Your task to perform on an android device: open device folders in google photos Image 0: 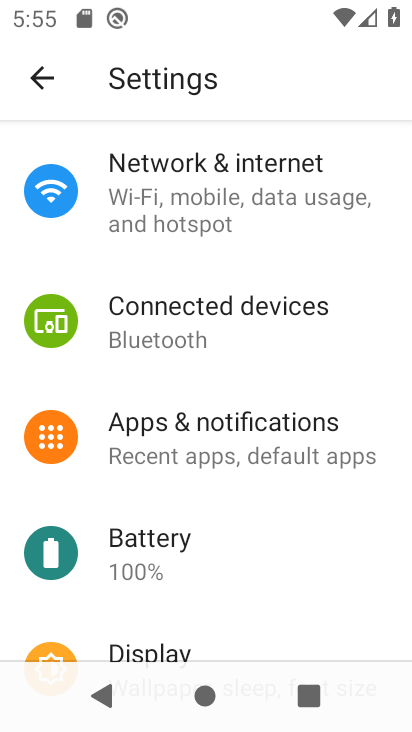
Step 0: drag from (199, 602) to (210, 88)
Your task to perform on an android device: open device folders in google photos Image 1: 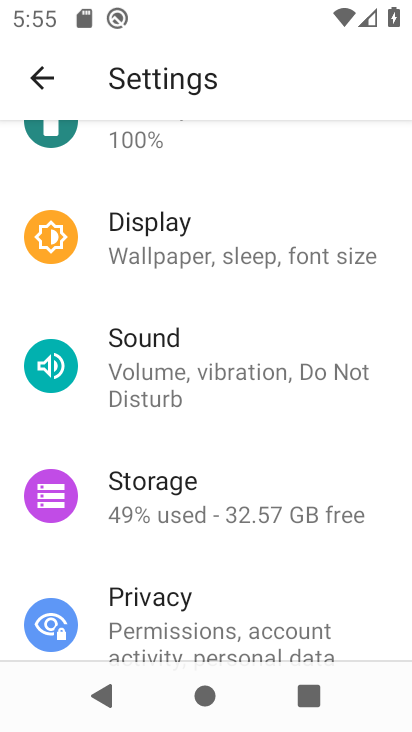
Step 1: press home button
Your task to perform on an android device: open device folders in google photos Image 2: 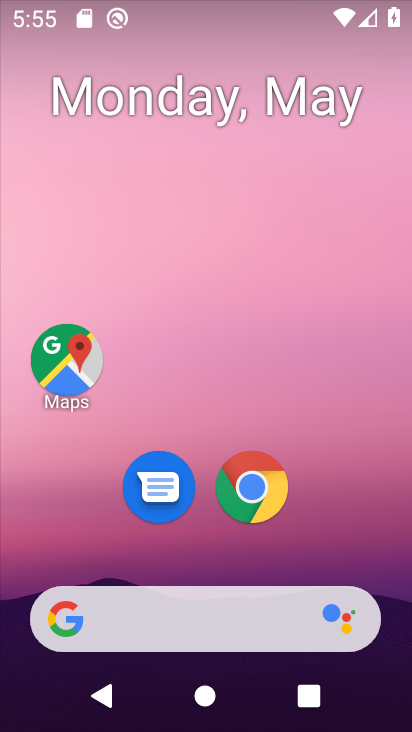
Step 2: drag from (210, 557) to (250, 63)
Your task to perform on an android device: open device folders in google photos Image 3: 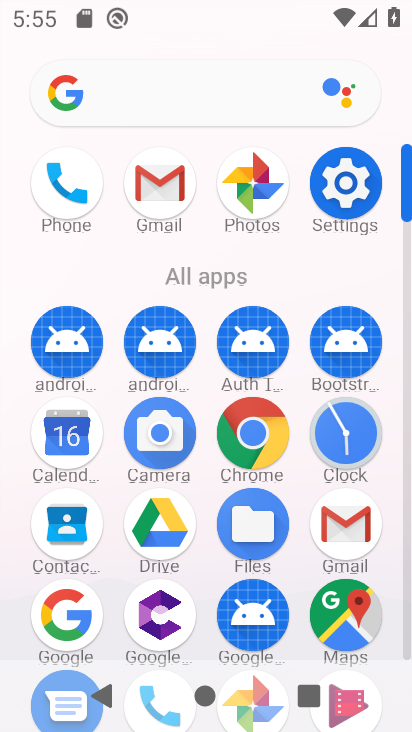
Step 3: drag from (205, 562) to (207, 142)
Your task to perform on an android device: open device folders in google photos Image 4: 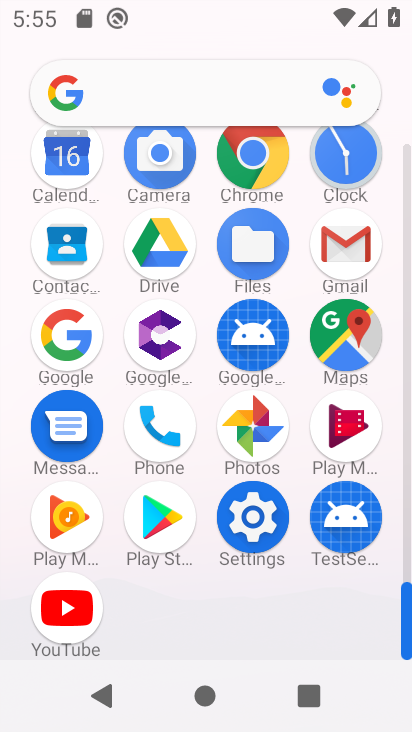
Step 4: click (251, 416)
Your task to perform on an android device: open device folders in google photos Image 5: 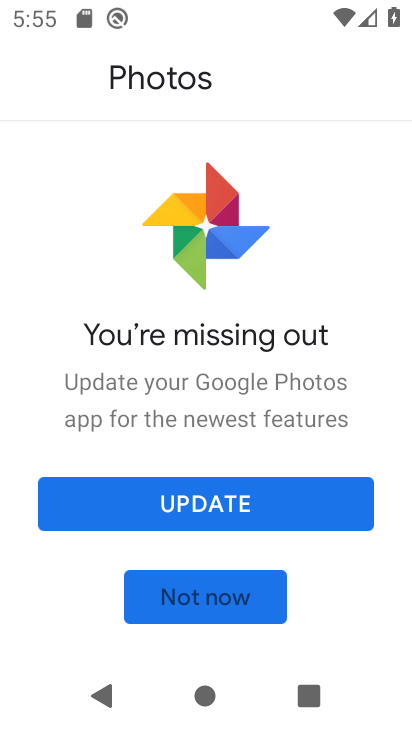
Step 5: click (212, 500)
Your task to perform on an android device: open device folders in google photos Image 6: 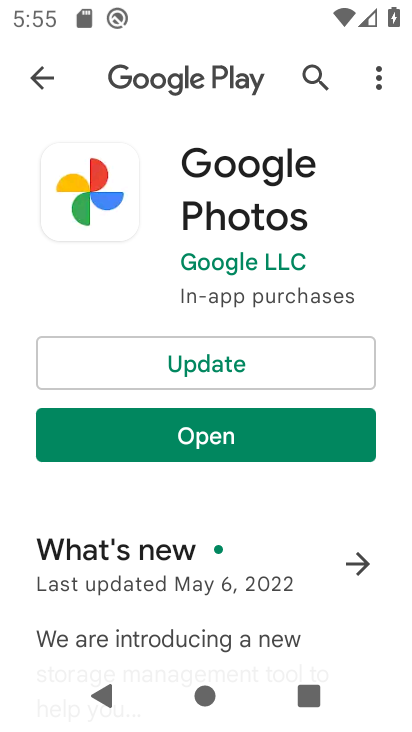
Step 6: click (214, 363)
Your task to perform on an android device: open device folders in google photos Image 7: 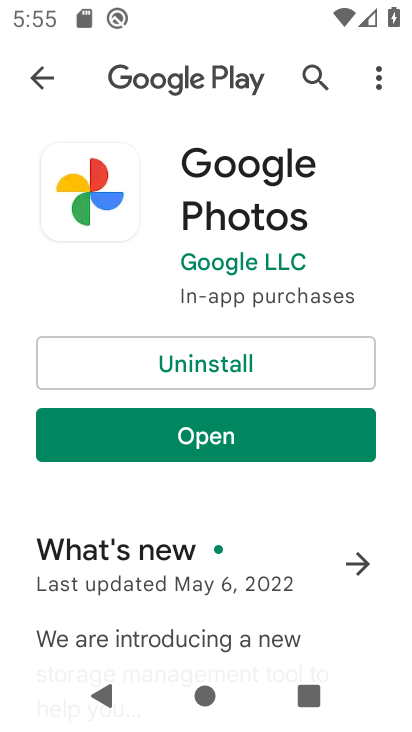
Step 7: click (202, 446)
Your task to perform on an android device: open device folders in google photos Image 8: 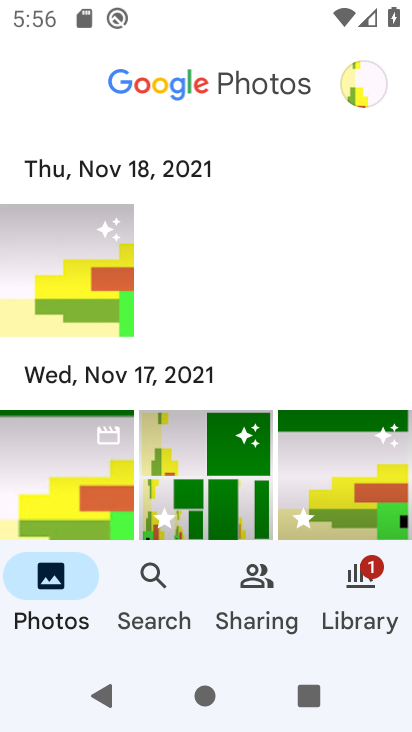
Step 8: click (164, 465)
Your task to perform on an android device: open device folders in google photos Image 9: 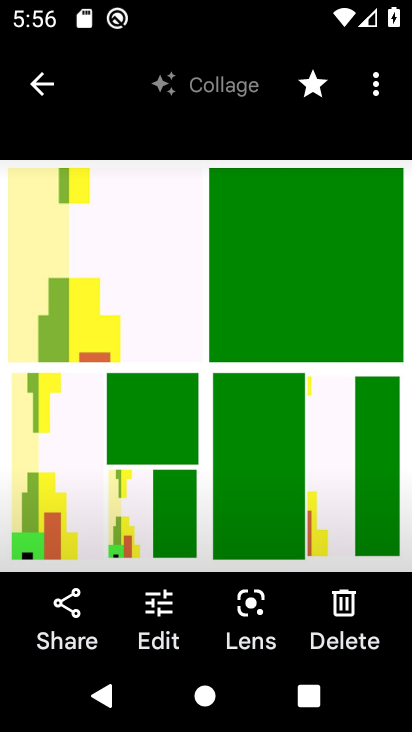
Step 9: click (90, 685)
Your task to perform on an android device: open device folders in google photos Image 10: 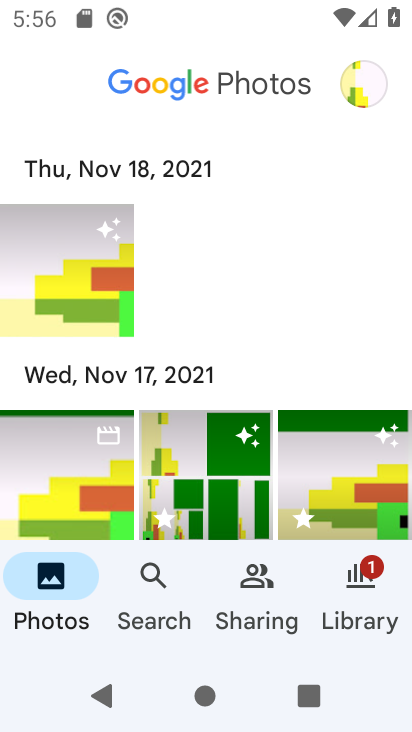
Step 10: click (141, 571)
Your task to perform on an android device: open device folders in google photos Image 11: 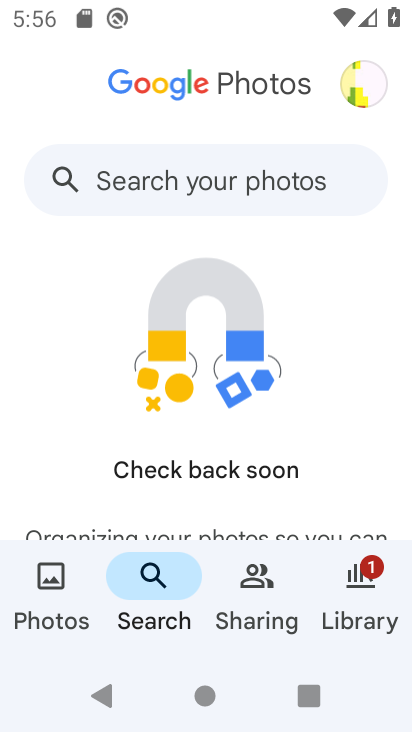
Step 11: drag from (125, 438) to (135, 164)
Your task to perform on an android device: open device folders in google photos Image 12: 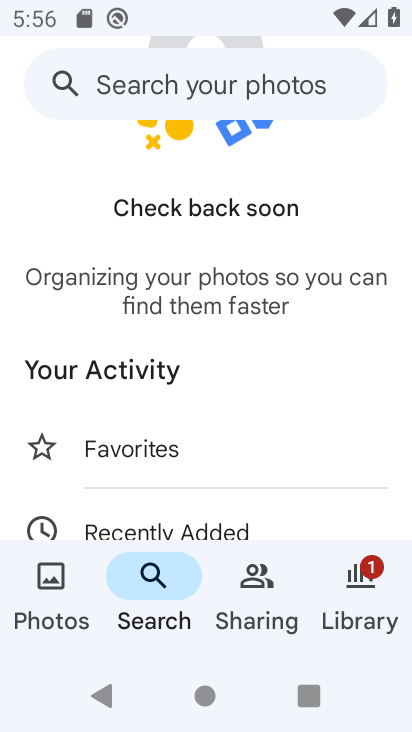
Step 12: drag from (123, 472) to (134, 105)
Your task to perform on an android device: open device folders in google photos Image 13: 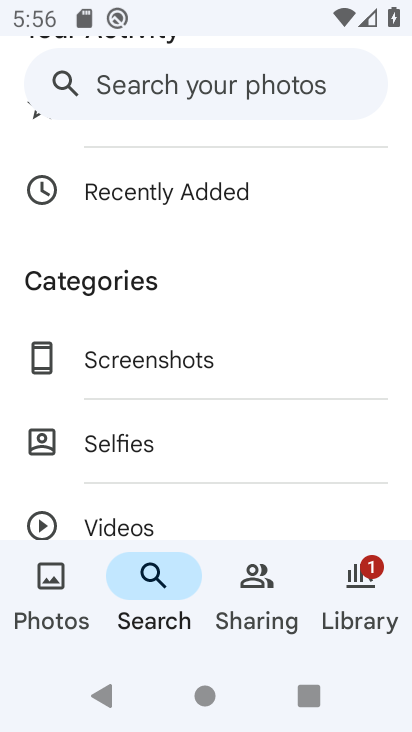
Step 13: drag from (135, 460) to (175, 197)
Your task to perform on an android device: open device folders in google photos Image 14: 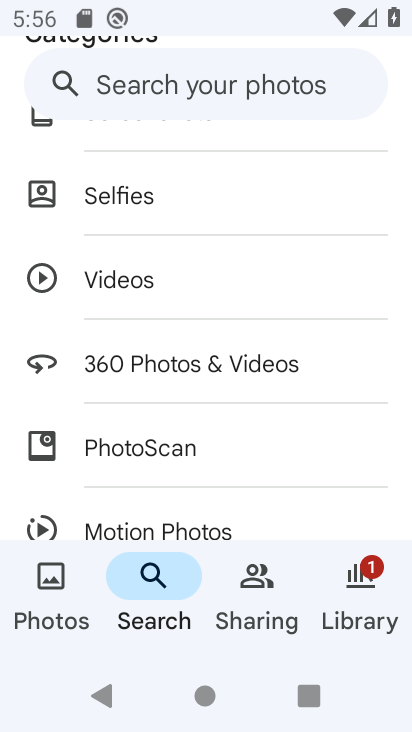
Step 14: drag from (145, 460) to (182, 169)
Your task to perform on an android device: open device folders in google photos Image 15: 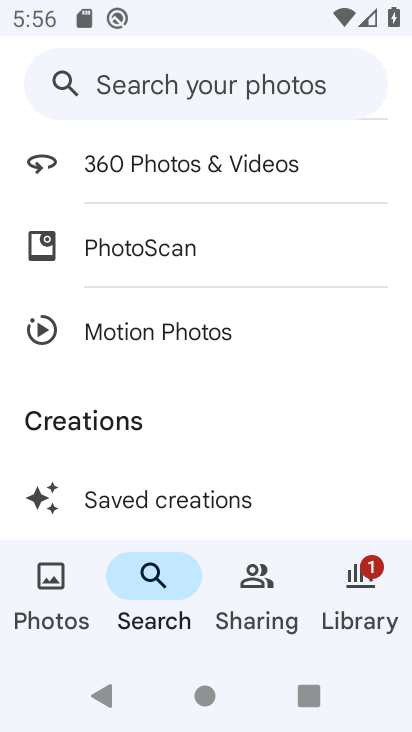
Step 15: click (142, 67)
Your task to perform on an android device: open device folders in google photos Image 16: 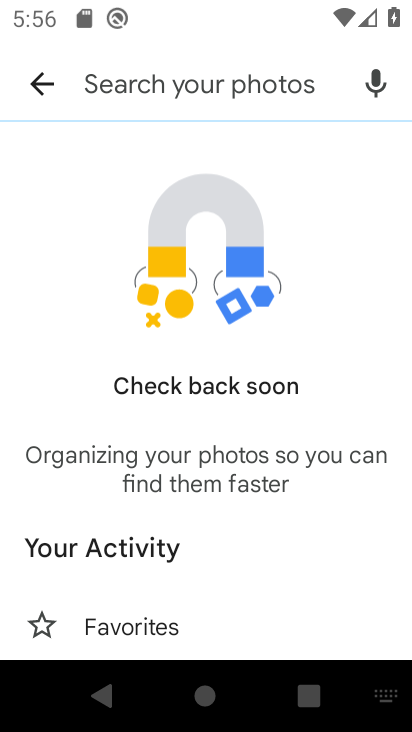
Step 16: type "device"
Your task to perform on an android device: open device folders in google photos Image 17: 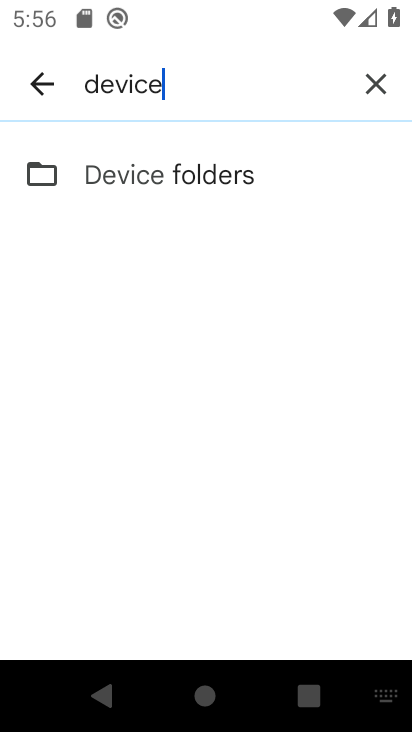
Step 17: click (147, 182)
Your task to perform on an android device: open device folders in google photos Image 18: 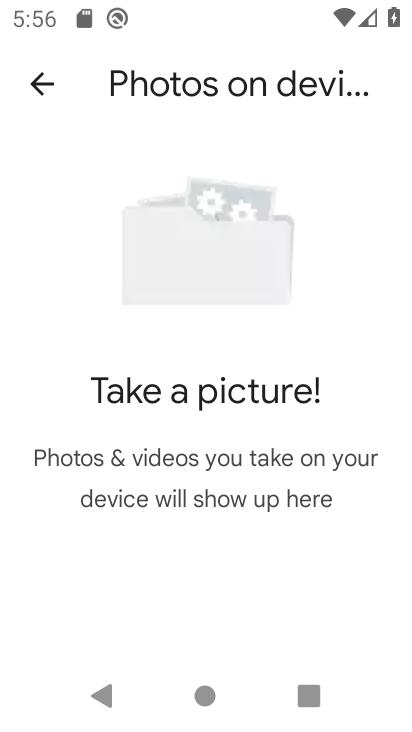
Step 18: task complete